Your task to perform on an android device: Go to eBay Image 0: 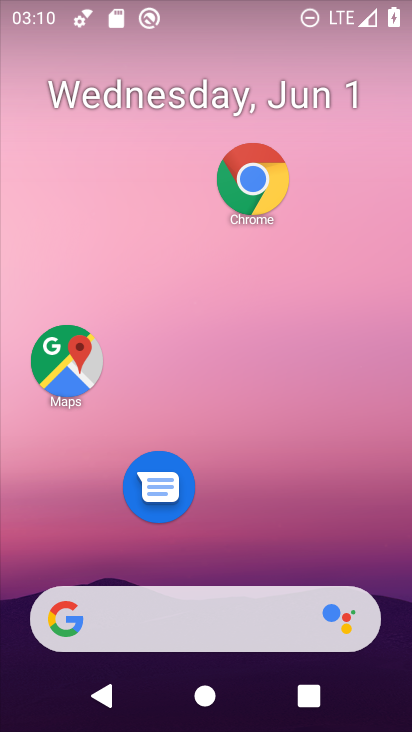
Step 0: click (258, 190)
Your task to perform on an android device: Go to eBay Image 1: 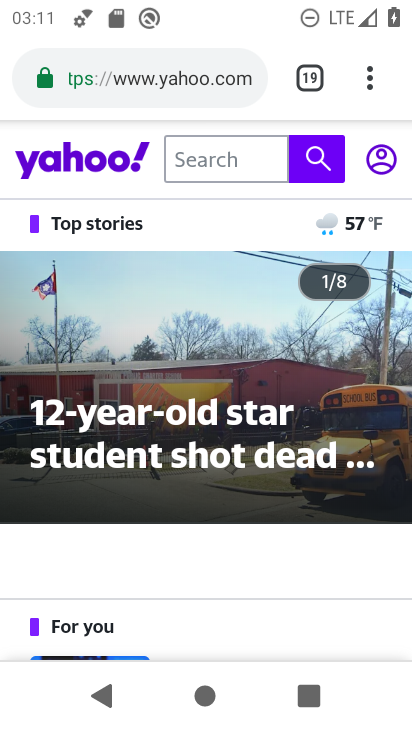
Step 1: click (375, 60)
Your task to perform on an android device: Go to eBay Image 2: 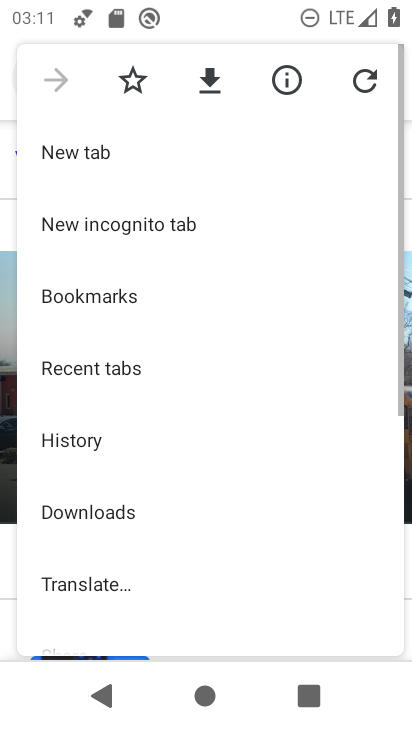
Step 2: click (137, 141)
Your task to perform on an android device: Go to eBay Image 3: 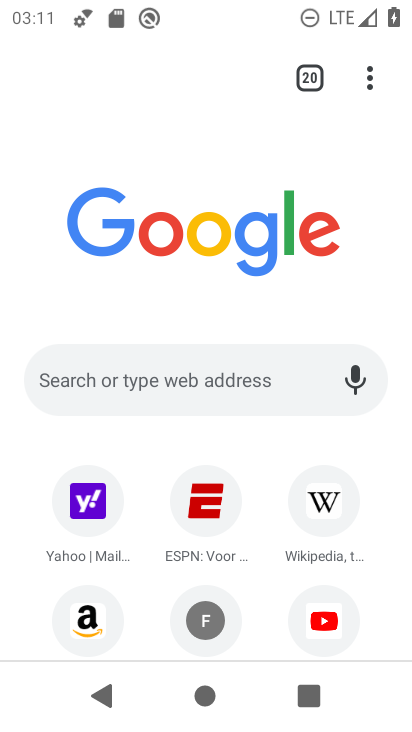
Step 3: drag from (221, 598) to (243, 398)
Your task to perform on an android device: Go to eBay Image 4: 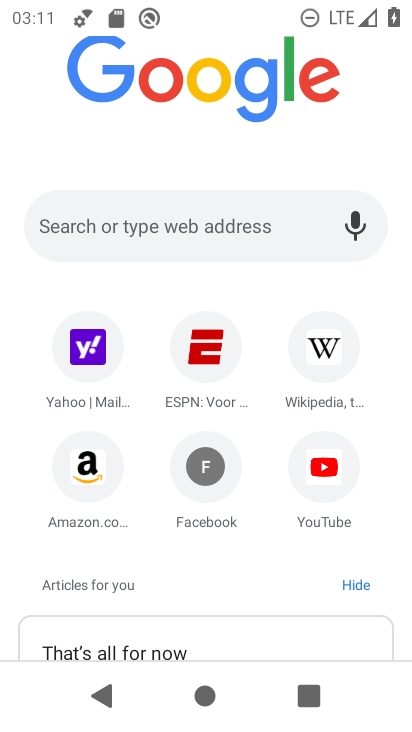
Step 4: click (209, 227)
Your task to perform on an android device: Go to eBay Image 5: 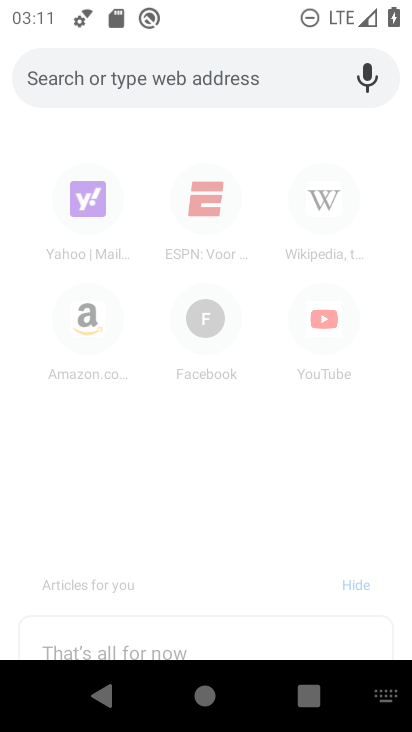
Step 5: type "eBay"
Your task to perform on an android device: Go to eBay Image 6: 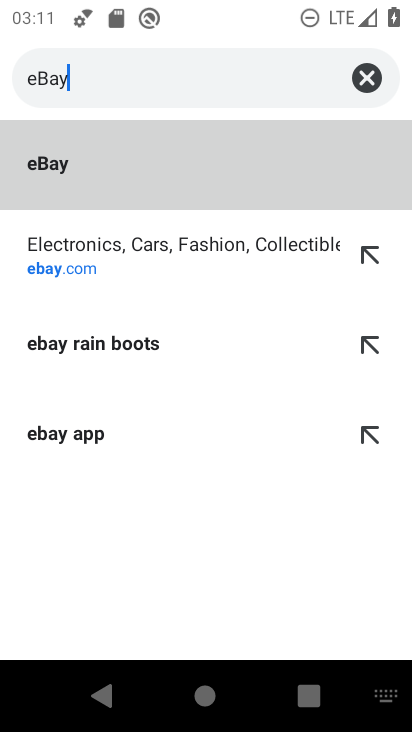
Step 6: click (299, 167)
Your task to perform on an android device: Go to eBay Image 7: 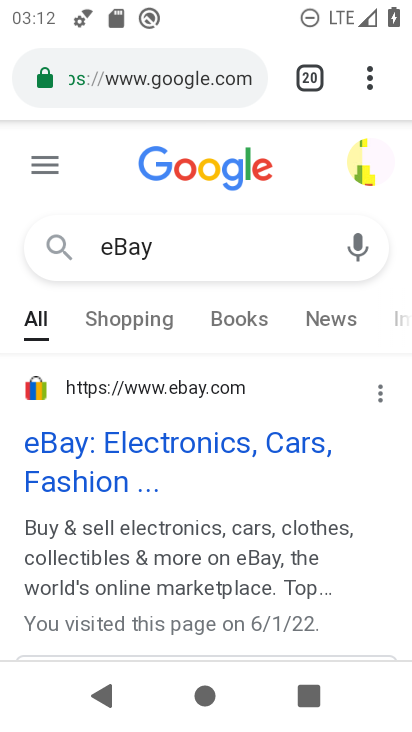
Step 7: task complete